Your task to perform on an android device: add a contact Image 0: 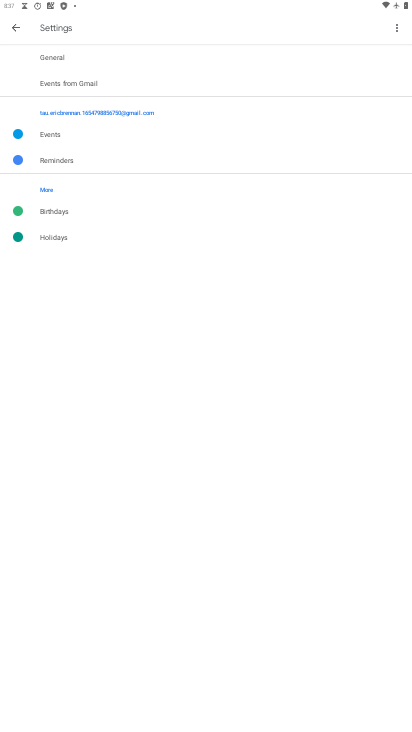
Step 0: drag from (236, 570) to (269, 372)
Your task to perform on an android device: add a contact Image 1: 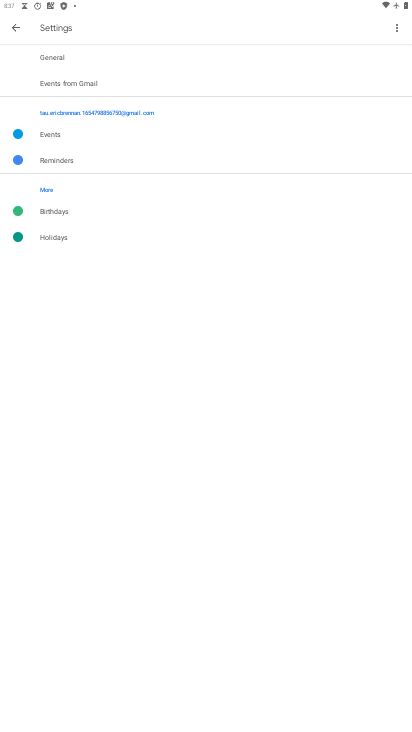
Step 1: press home button
Your task to perform on an android device: add a contact Image 2: 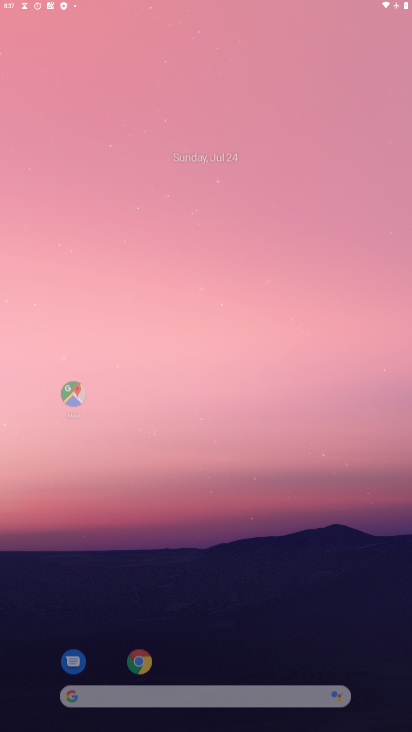
Step 2: drag from (104, 606) to (227, 102)
Your task to perform on an android device: add a contact Image 3: 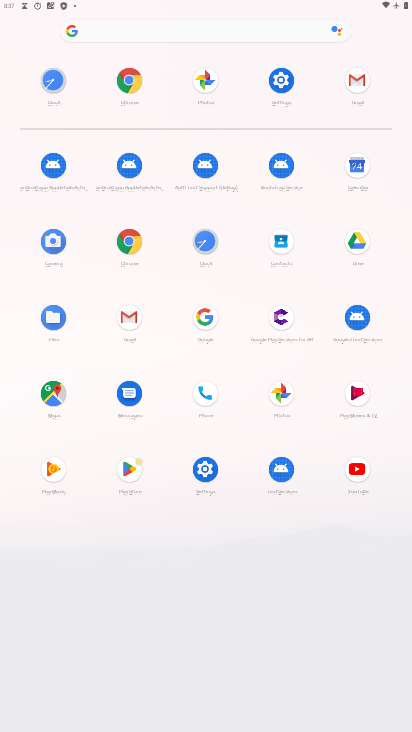
Step 3: click (267, 234)
Your task to perform on an android device: add a contact Image 4: 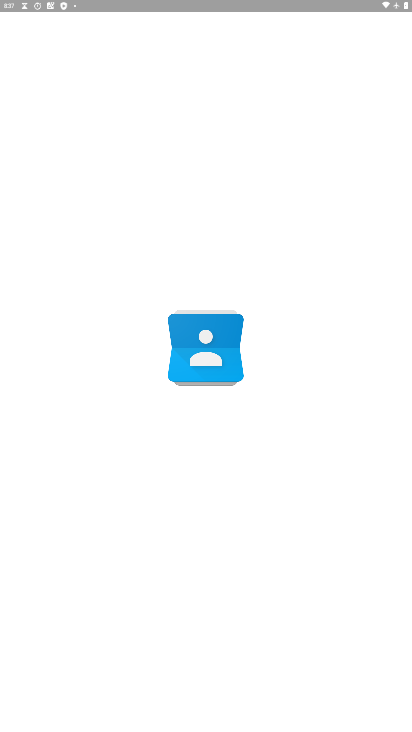
Step 4: drag from (214, 604) to (238, 376)
Your task to perform on an android device: add a contact Image 5: 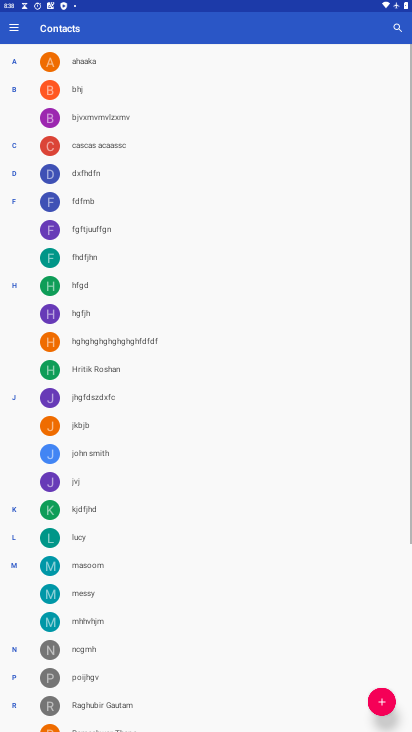
Step 5: drag from (256, 664) to (255, 362)
Your task to perform on an android device: add a contact Image 6: 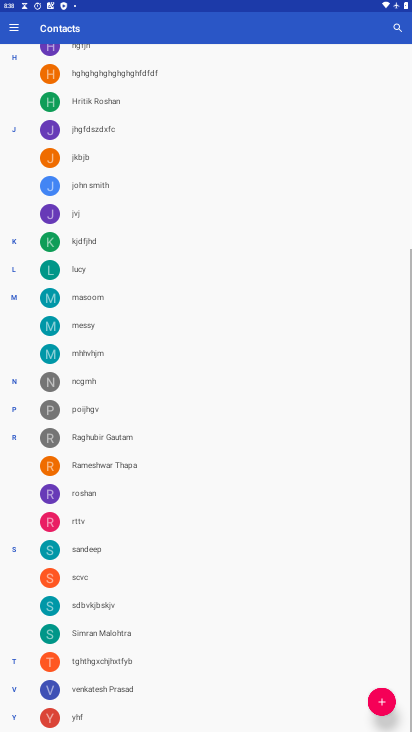
Step 6: click (380, 689)
Your task to perform on an android device: add a contact Image 7: 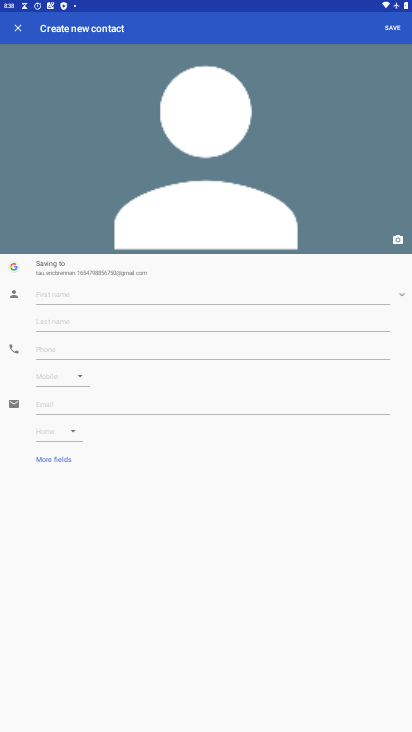
Step 7: click (85, 290)
Your task to perform on an android device: add a contact Image 8: 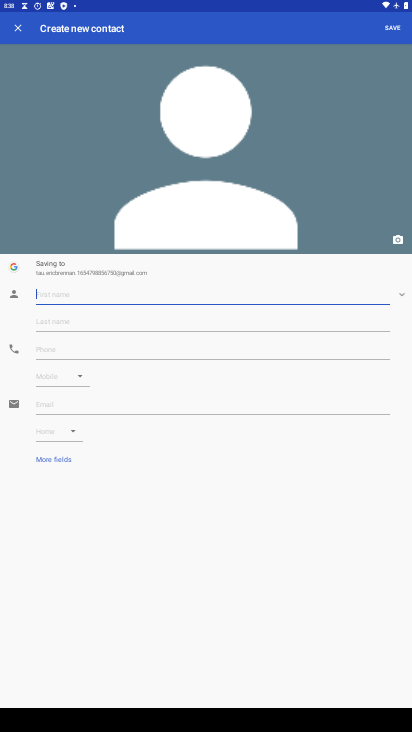
Step 8: type "jjuun"
Your task to perform on an android device: add a contact Image 9: 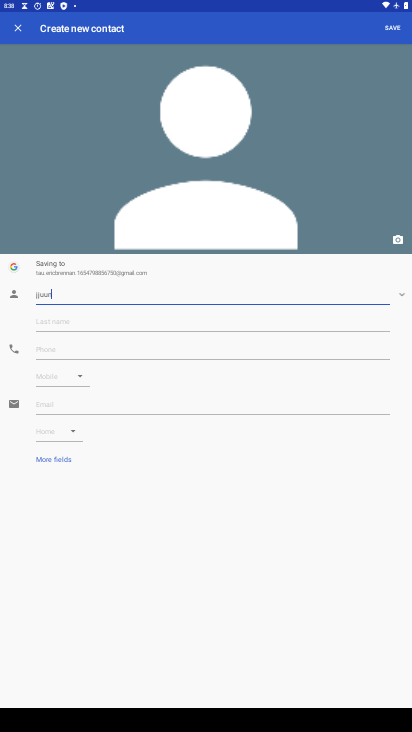
Step 9: drag from (220, 600) to (277, 240)
Your task to perform on an android device: add a contact Image 10: 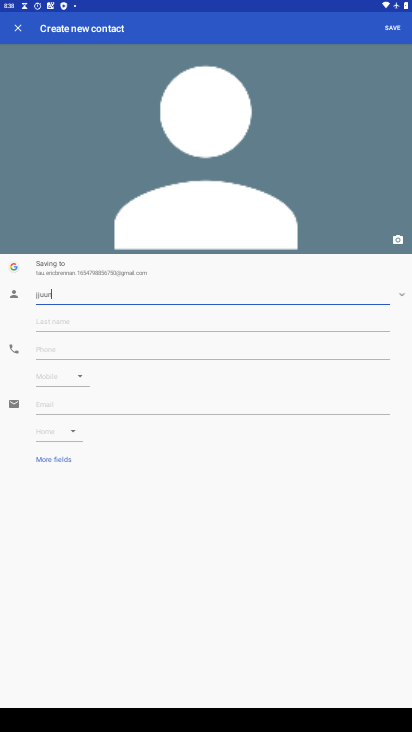
Step 10: click (56, 349)
Your task to perform on an android device: add a contact Image 11: 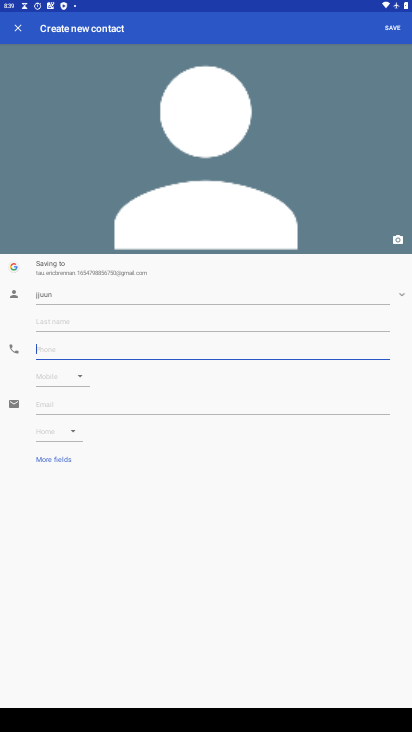
Step 11: type "8798978908"
Your task to perform on an android device: add a contact Image 12: 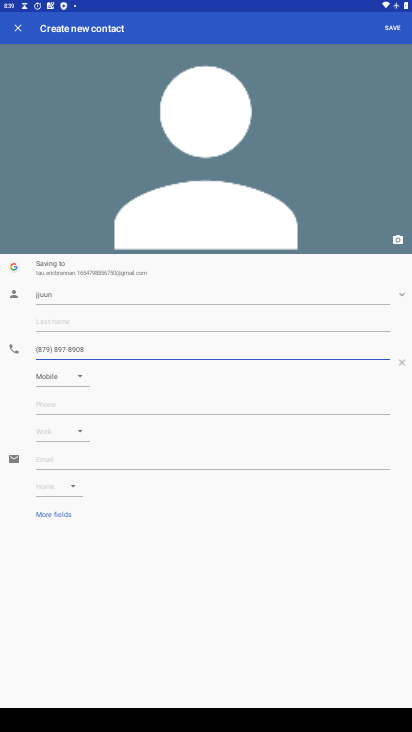
Step 12: drag from (192, 549) to (203, 25)
Your task to perform on an android device: add a contact Image 13: 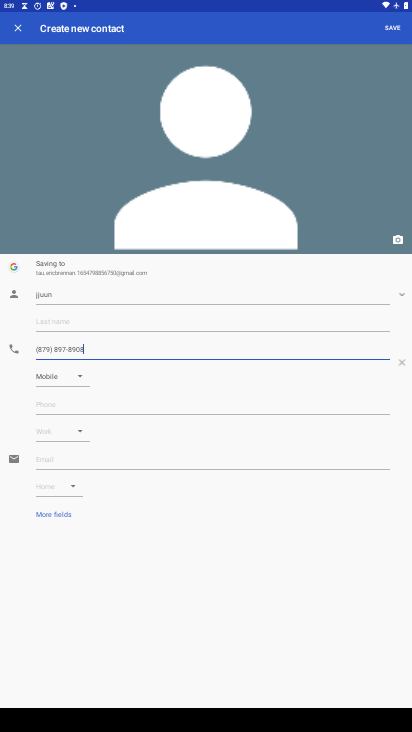
Step 13: drag from (228, 547) to (223, 260)
Your task to perform on an android device: add a contact Image 14: 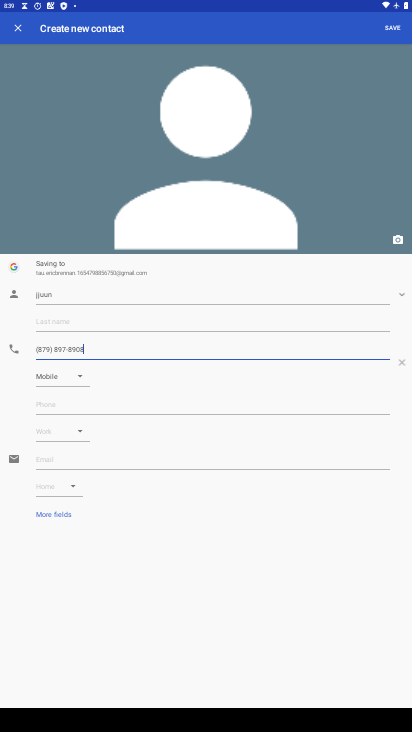
Step 14: drag from (211, 538) to (248, 262)
Your task to perform on an android device: add a contact Image 15: 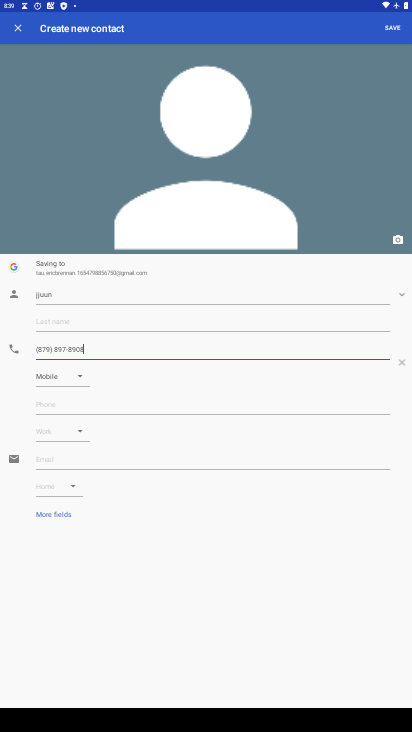
Step 15: click (395, 29)
Your task to perform on an android device: add a contact Image 16: 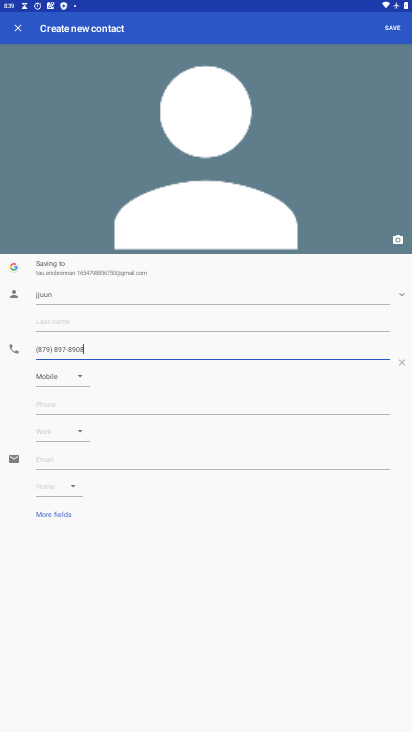
Step 16: task complete